Your task to perform on an android device: set default search engine in the chrome app Image 0: 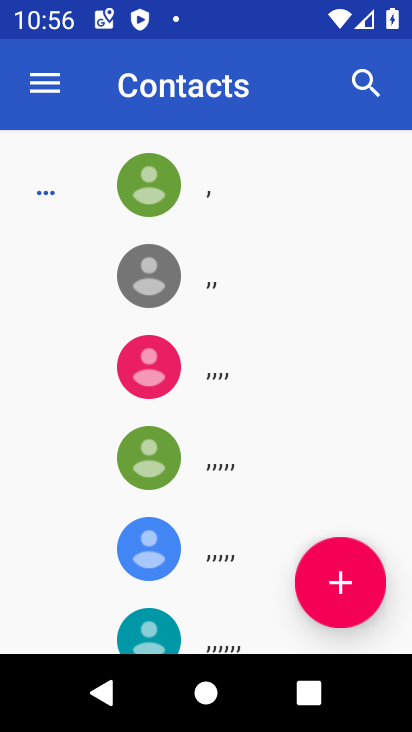
Step 0: drag from (159, 473) to (223, 82)
Your task to perform on an android device: set default search engine in the chrome app Image 1: 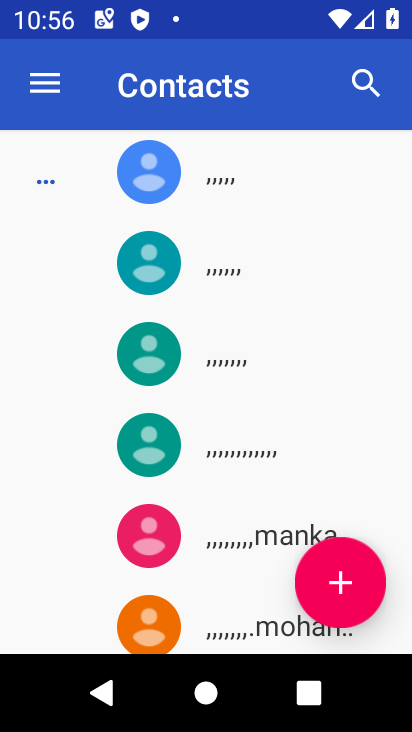
Step 1: press home button
Your task to perform on an android device: set default search engine in the chrome app Image 2: 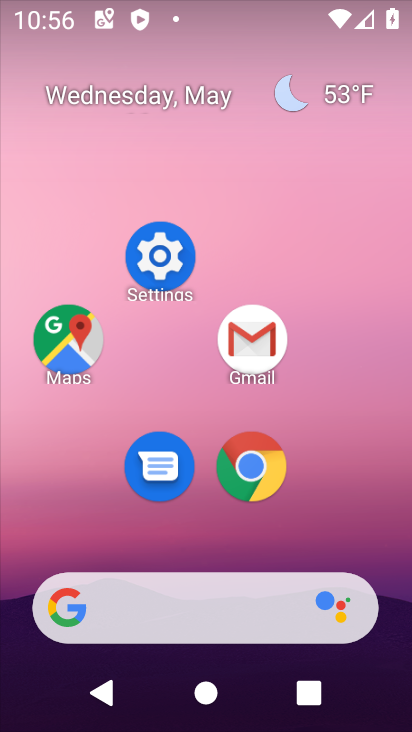
Step 2: click (253, 459)
Your task to perform on an android device: set default search engine in the chrome app Image 3: 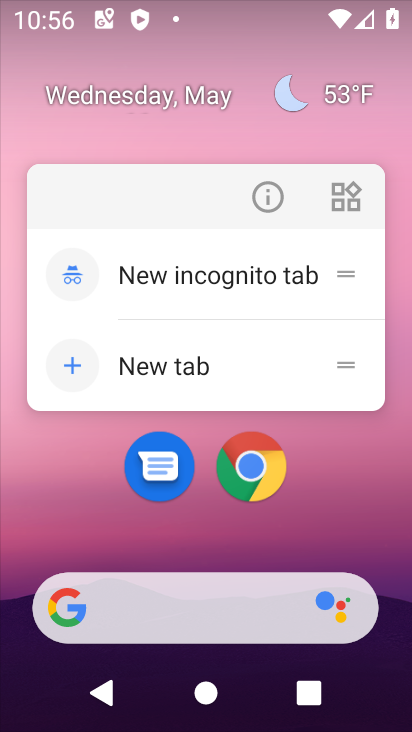
Step 3: click (274, 196)
Your task to perform on an android device: set default search engine in the chrome app Image 4: 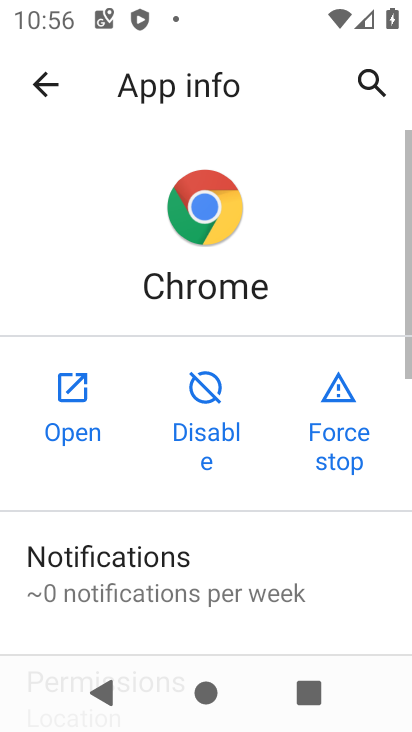
Step 4: click (88, 385)
Your task to perform on an android device: set default search engine in the chrome app Image 5: 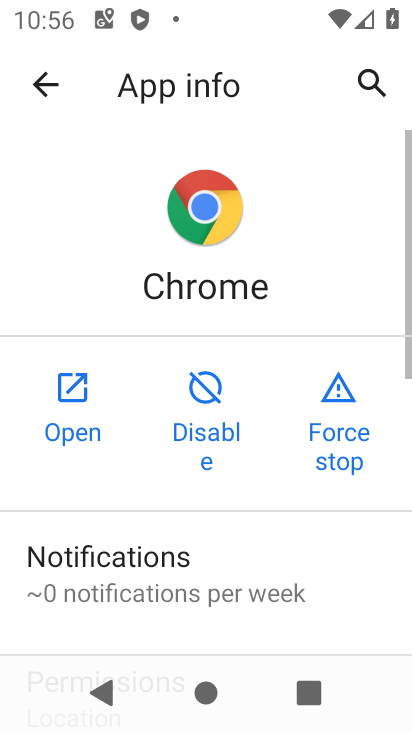
Step 5: click (87, 385)
Your task to perform on an android device: set default search engine in the chrome app Image 6: 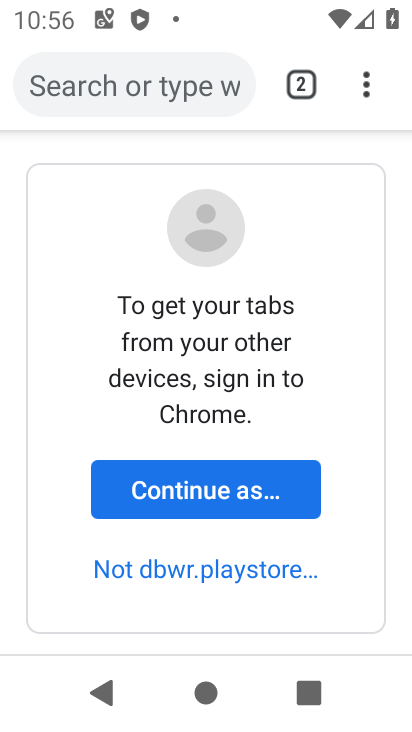
Step 6: click (366, 85)
Your task to perform on an android device: set default search engine in the chrome app Image 7: 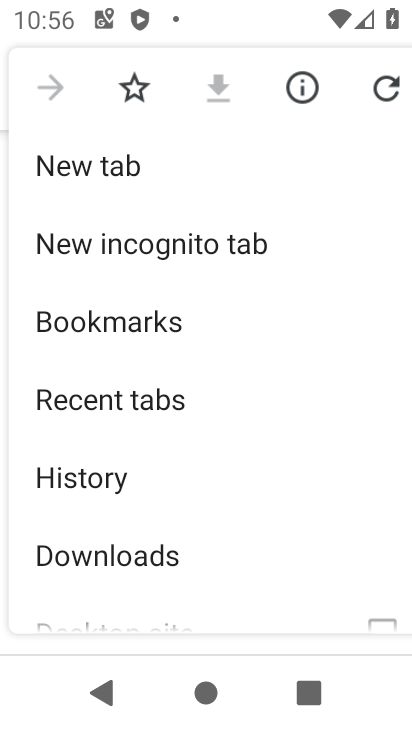
Step 7: click (375, 91)
Your task to perform on an android device: set default search engine in the chrome app Image 8: 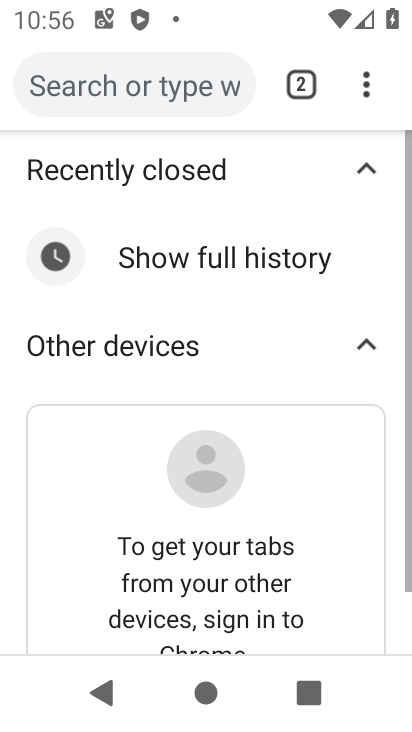
Step 8: drag from (180, 532) to (289, 238)
Your task to perform on an android device: set default search engine in the chrome app Image 9: 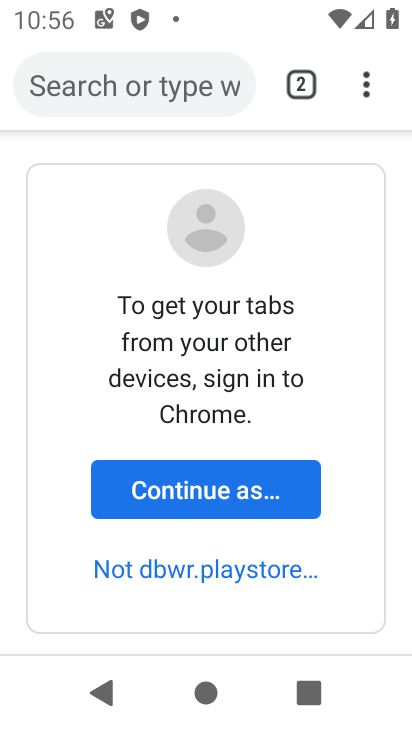
Step 9: click (367, 82)
Your task to perform on an android device: set default search engine in the chrome app Image 10: 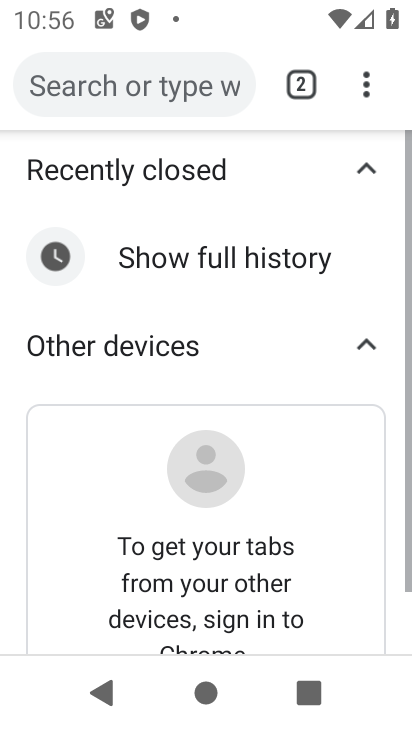
Step 10: click (367, 82)
Your task to perform on an android device: set default search engine in the chrome app Image 11: 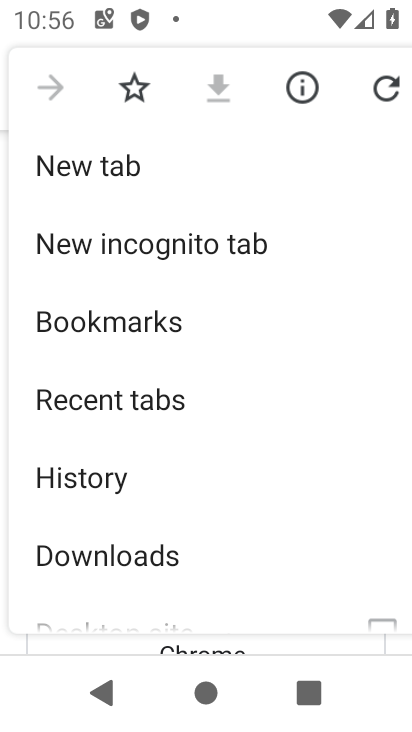
Step 11: drag from (137, 469) to (212, 116)
Your task to perform on an android device: set default search engine in the chrome app Image 12: 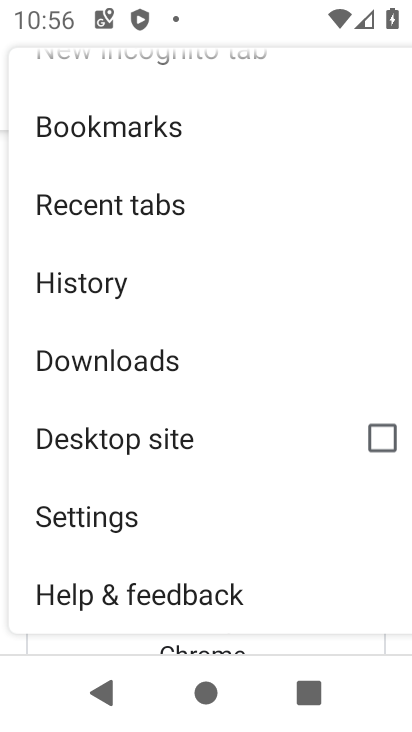
Step 12: click (100, 533)
Your task to perform on an android device: set default search engine in the chrome app Image 13: 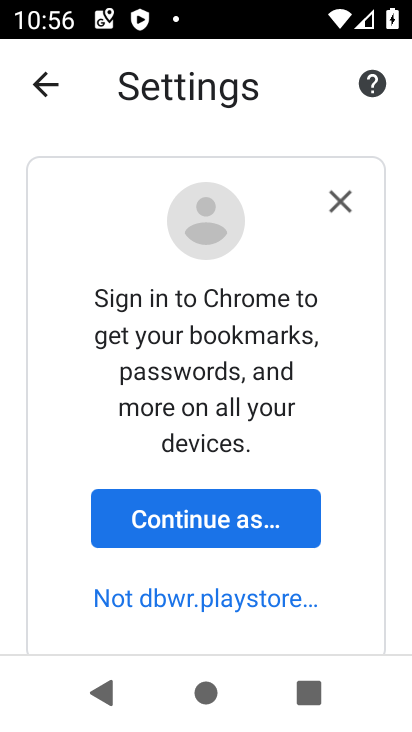
Step 13: drag from (268, 488) to (363, 139)
Your task to perform on an android device: set default search engine in the chrome app Image 14: 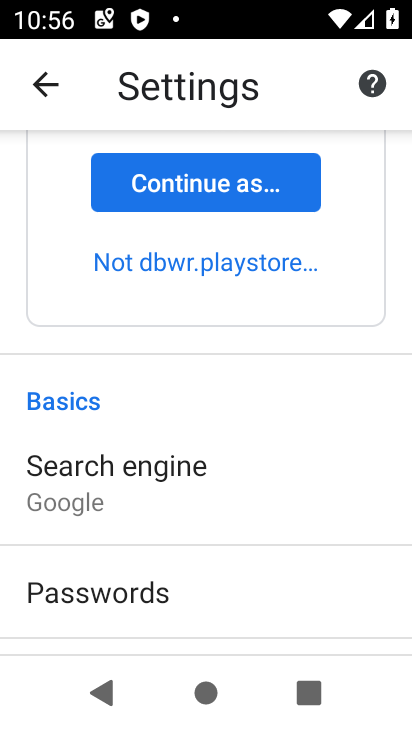
Step 14: click (128, 484)
Your task to perform on an android device: set default search engine in the chrome app Image 15: 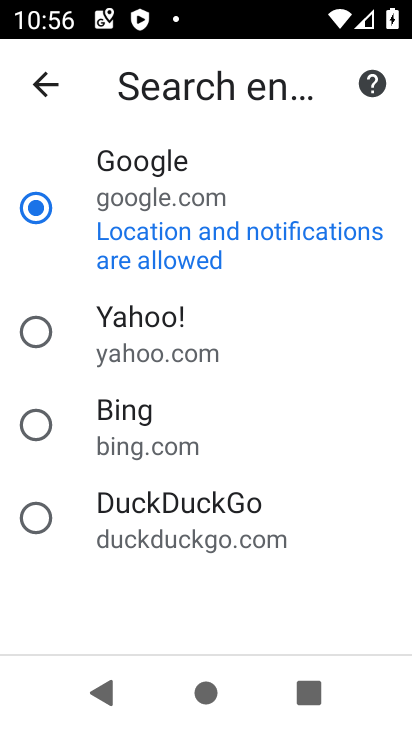
Step 15: task complete